Your task to perform on an android device: toggle improve location accuracy Image 0: 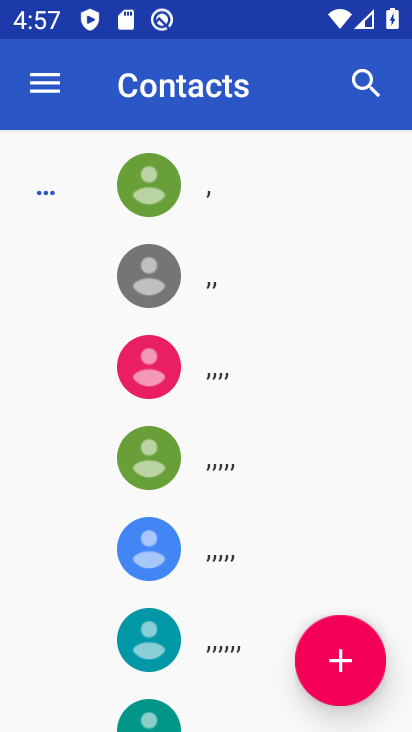
Step 0: press home button
Your task to perform on an android device: toggle improve location accuracy Image 1: 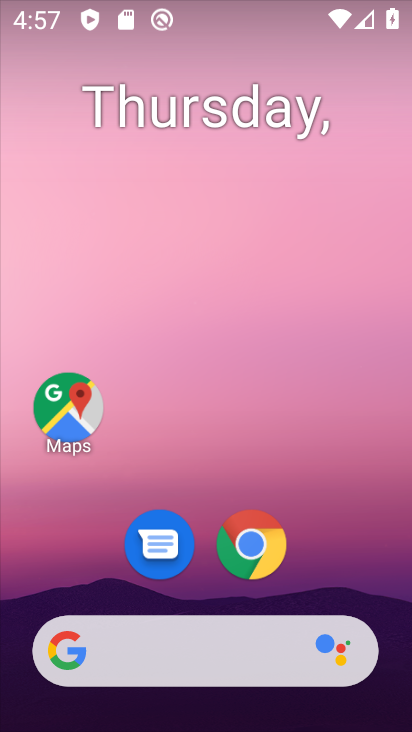
Step 1: drag from (337, 543) to (304, 112)
Your task to perform on an android device: toggle improve location accuracy Image 2: 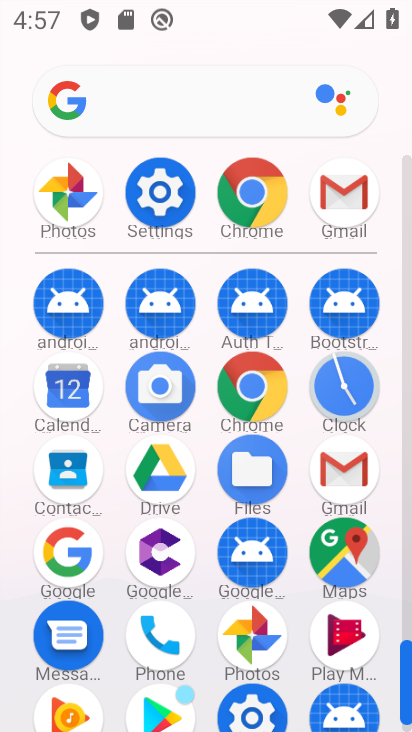
Step 2: click (156, 214)
Your task to perform on an android device: toggle improve location accuracy Image 3: 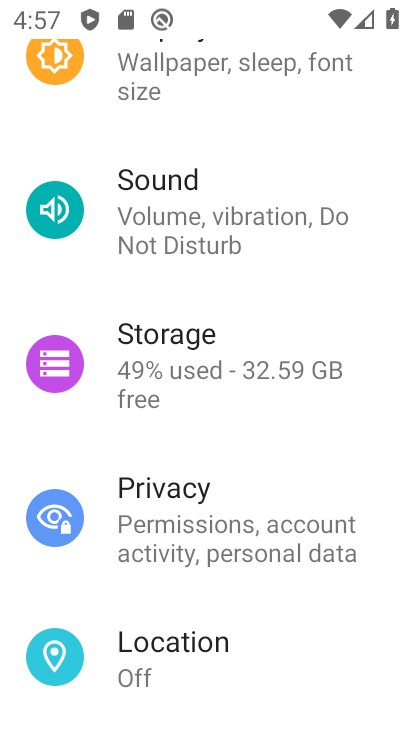
Step 3: click (185, 652)
Your task to perform on an android device: toggle improve location accuracy Image 4: 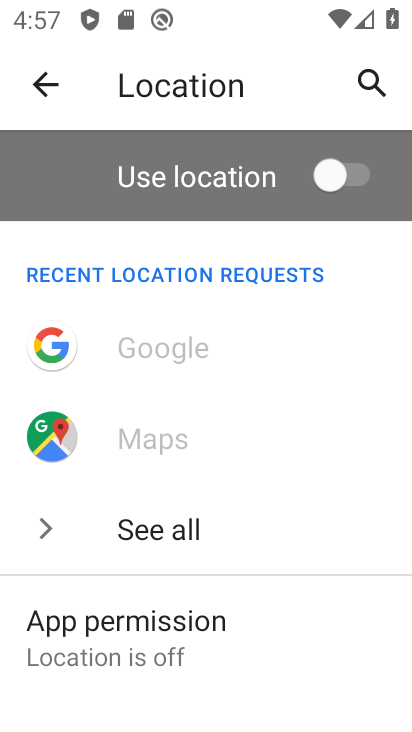
Step 4: drag from (161, 492) to (185, 244)
Your task to perform on an android device: toggle improve location accuracy Image 5: 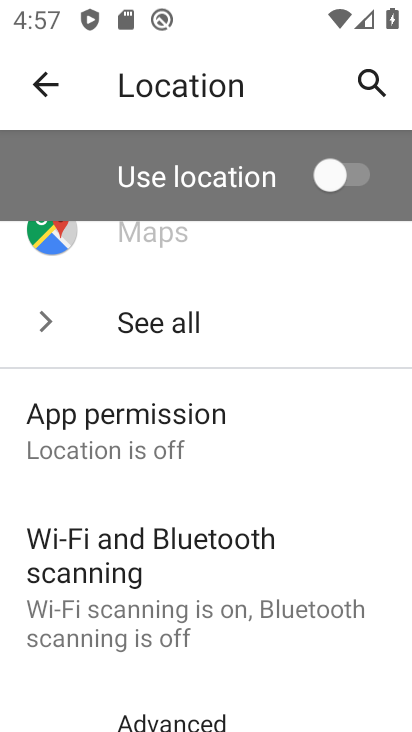
Step 5: drag from (178, 491) to (229, 259)
Your task to perform on an android device: toggle improve location accuracy Image 6: 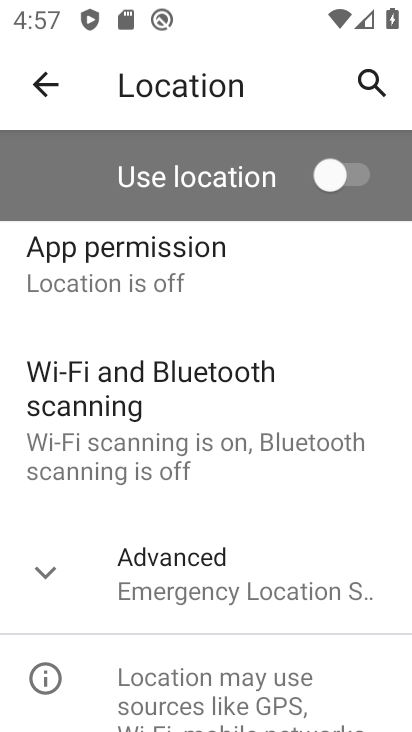
Step 6: click (187, 588)
Your task to perform on an android device: toggle improve location accuracy Image 7: 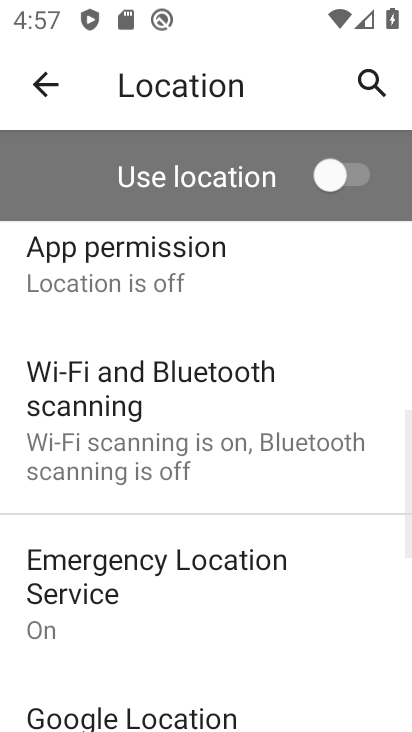
Step 7: drag from (175, 640) to (194, 362)
Your task to perform on an android device: toggle improve location accuracy Image 8: 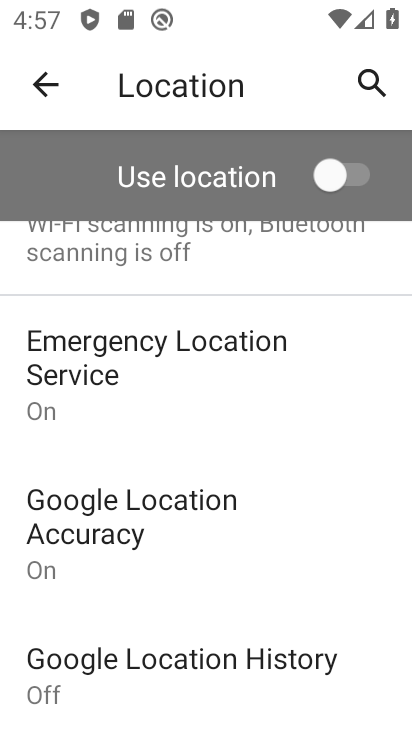
Step 8: drag from (110, 471) to (147, 285)
Your task to perform on an android device: toggle improve location accuracy Image 9: 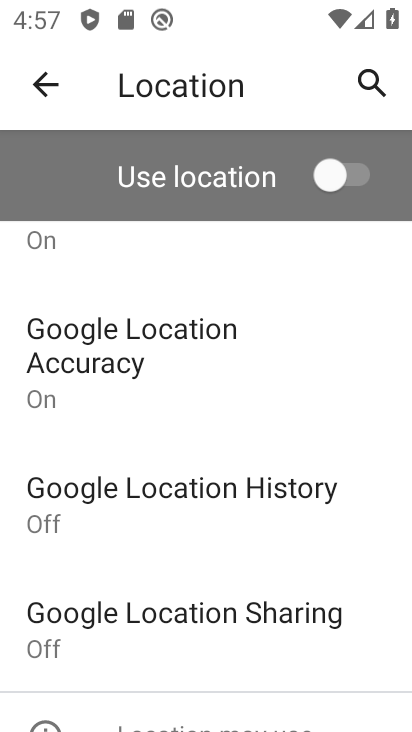
Step 9: drag from (94, 562) to (133, 325)
Your task to perform on an android device: toggle improve location accuracy Image 10: 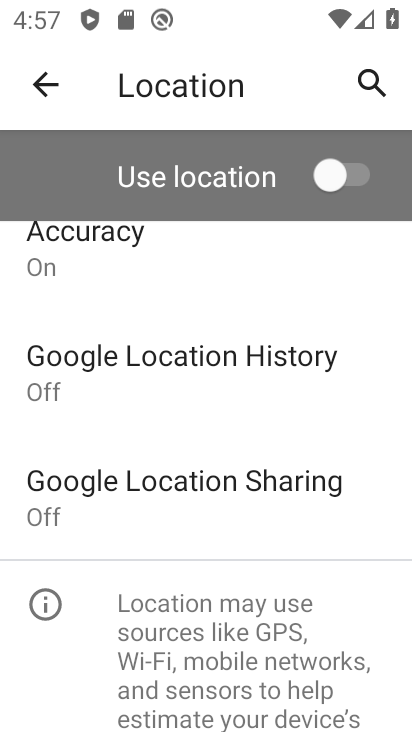
Step 10: drag from (116, 310) to (102, 517)
Your task to perform on an android device: toggle improve location accuracy Image 11: 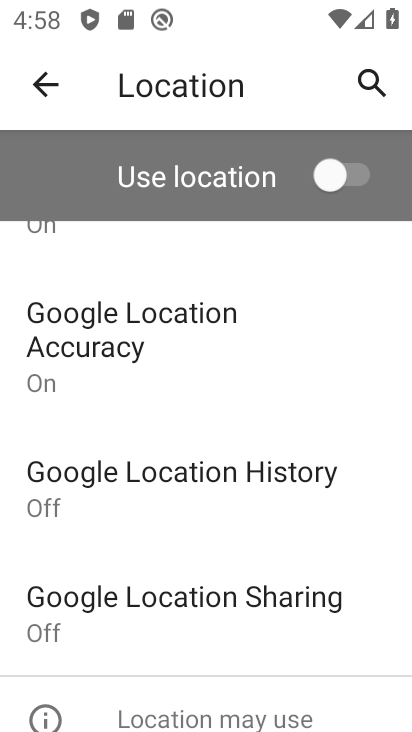
Step 11: click (128, 327)
Your task to perform on an android device: toggle improve location accuracy Image 12: 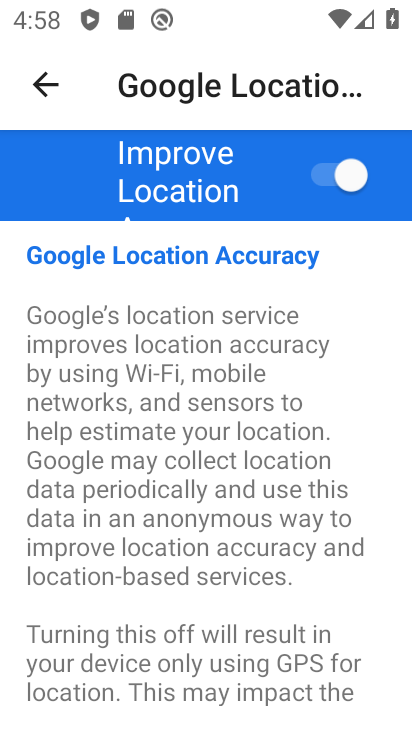
Step 12: click (323, 157)
Your task to perform on an android device: toggle improve location accuracy Image 13: 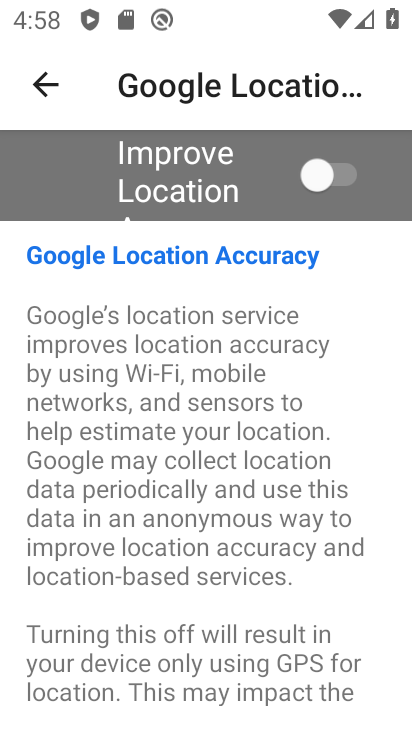
Step 13: task complete